Your task to perform on an android device: turn on notifications settings in the gmail app Image 0: 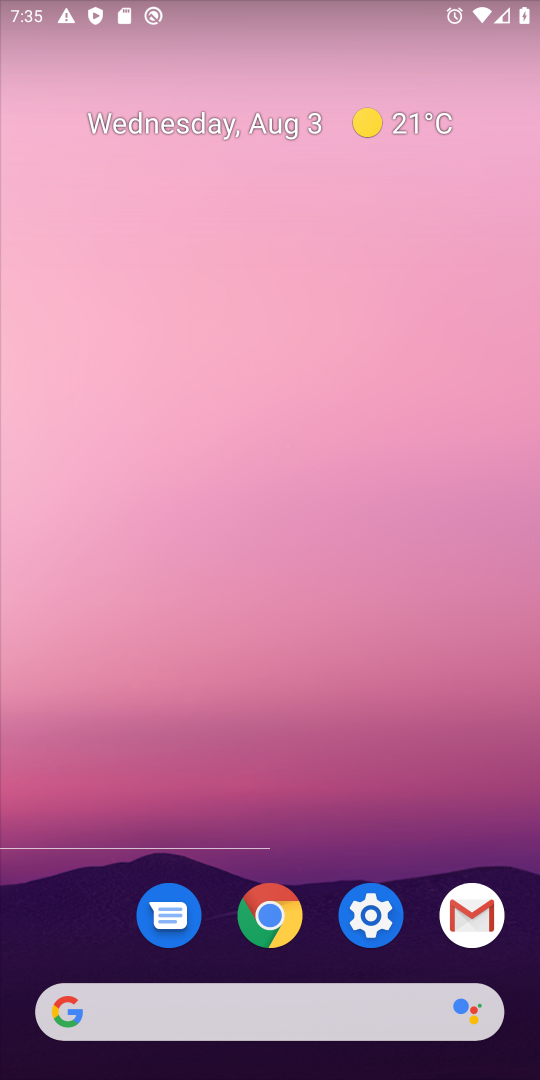
Step 0: press home button
Your task to perform on an android device: turn on notifications settings in the gmail app Image 1: 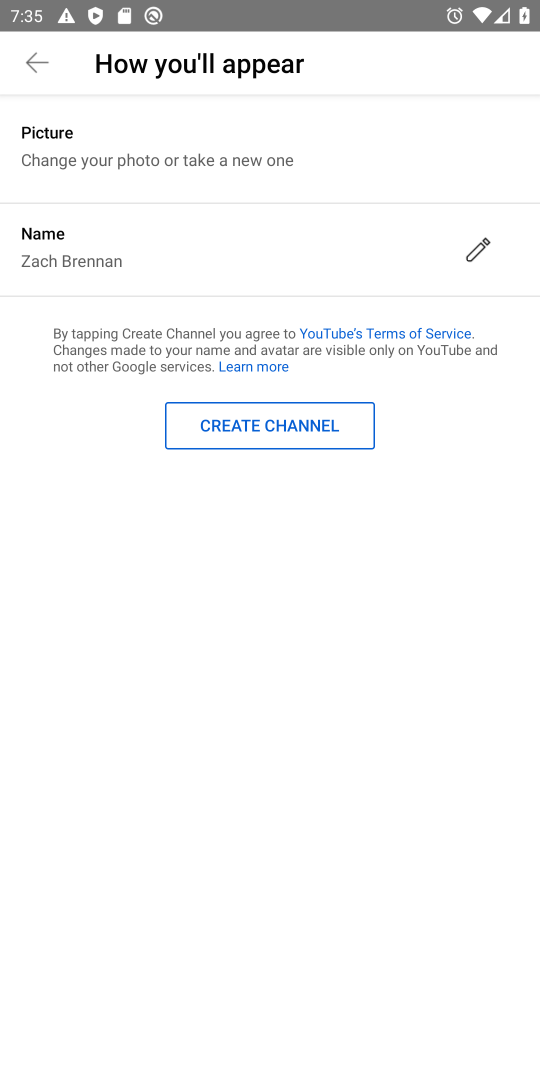
Step 1: drag from (321, 365) to (345, 83)
Your task to perform on an android device: turn on notifications settings in the gmail app Image 2: 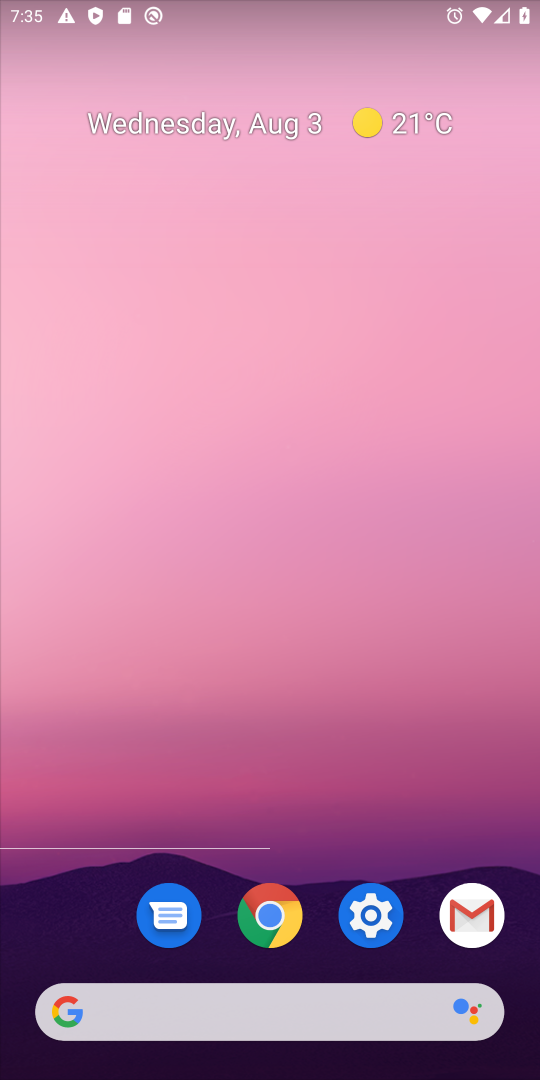
Step 2: drag from (283, 1043) to (292, 194)
Your task to perform on an android device: turn on notifications settings in the gmail app Image 3: 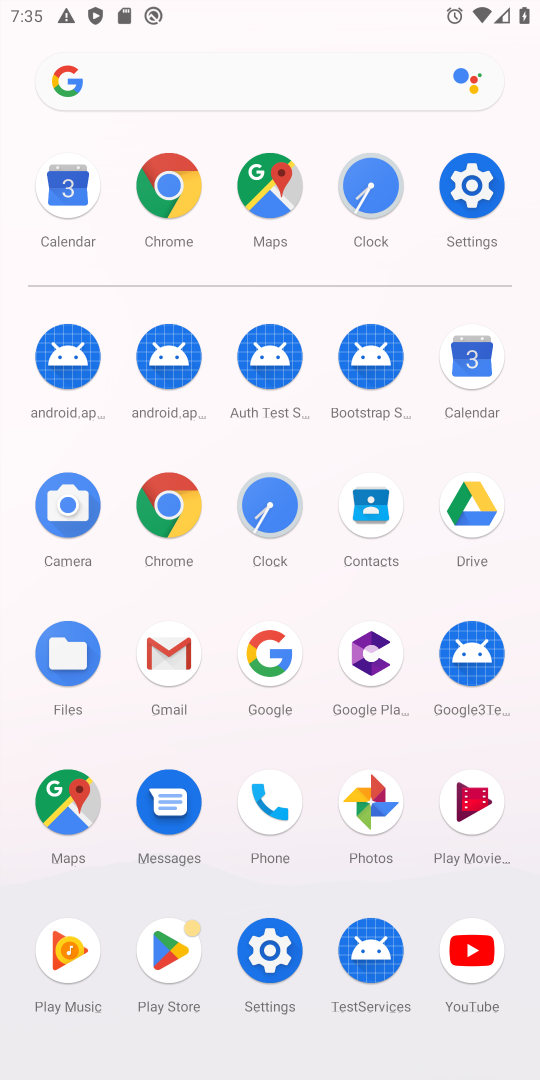
Step 3: click (186, 640)
Your task to perform on an android device: turn on notifications settings in the gmail app Image 4: 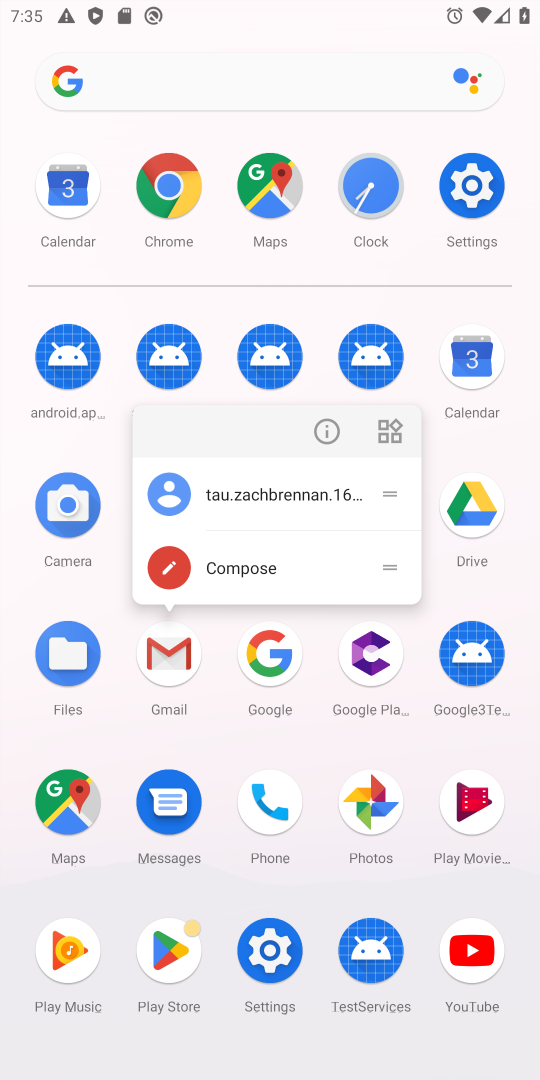
Step 4: click (181, 654)
Your task to perform on an android device: turn on notifications settings in the gmail app Image 5: 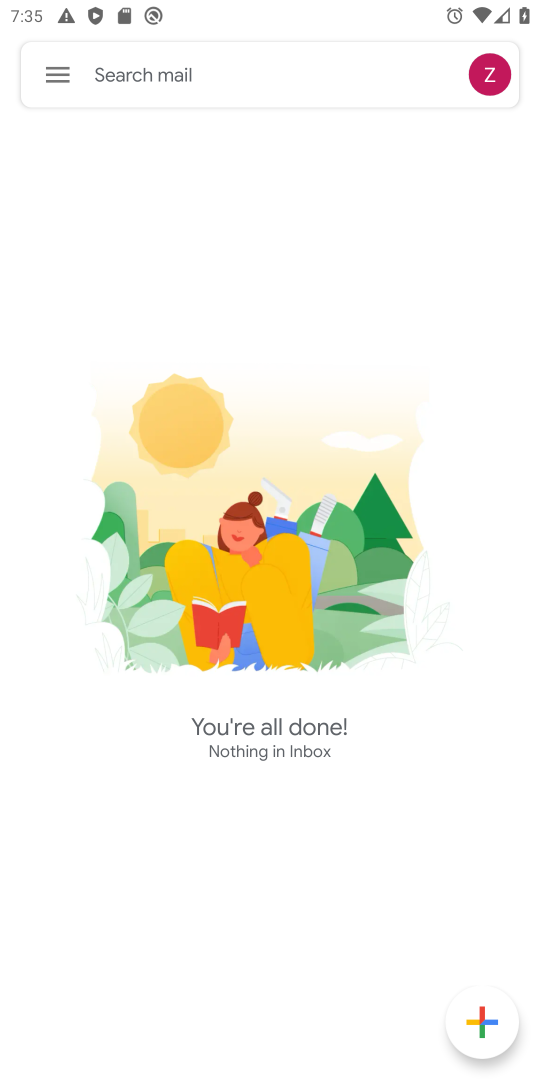
Step 5: click (55, 87)
Your task to perform on an android device: turn on notifications settings in the gmail app Image 6: 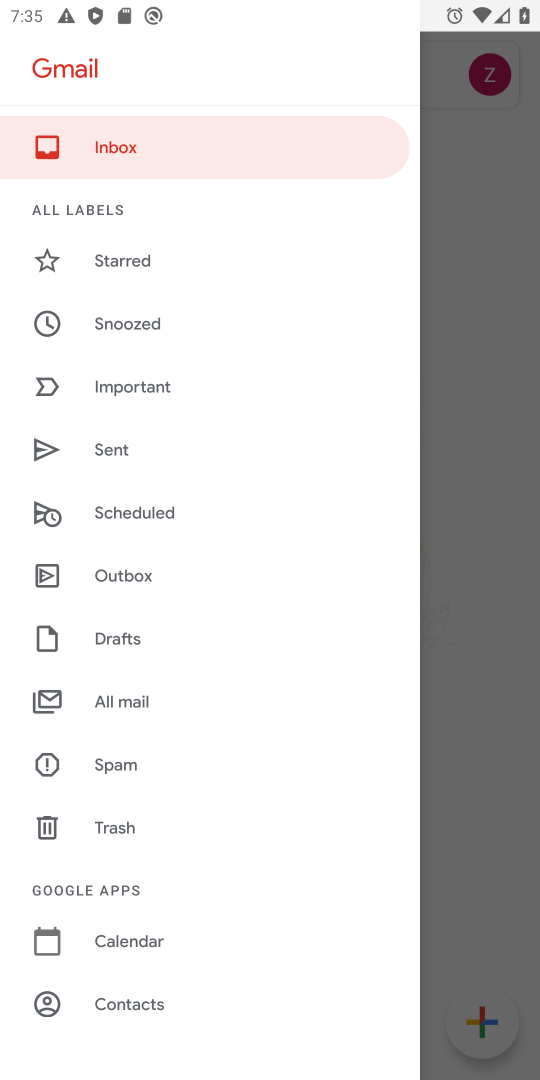
Step 6: drag from (139, 971) to (163, 856)
Your task to perform on an android device: turn on notifications settings in the gmail app Image 7: 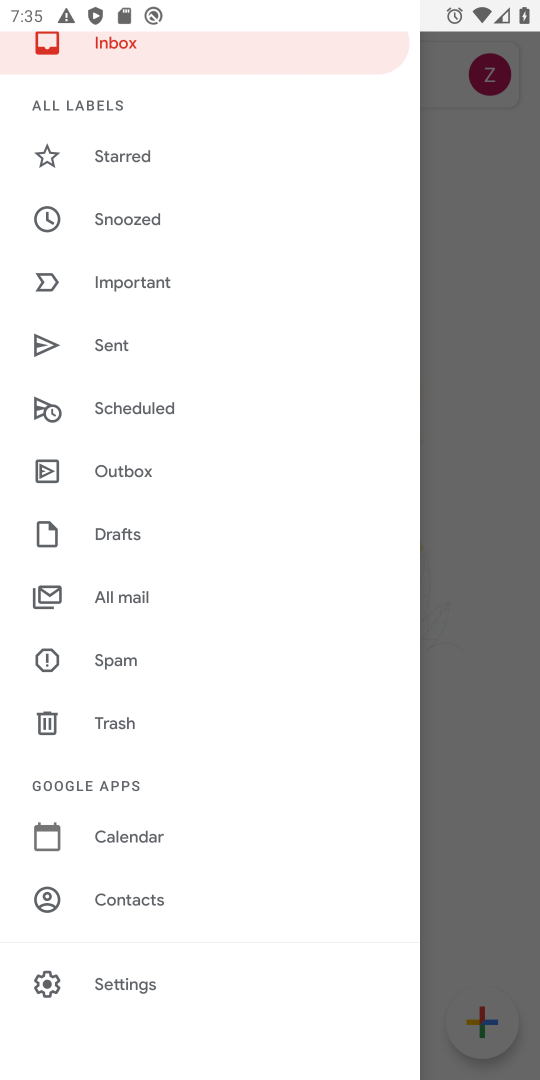
Step 7: click (121, 986)
Your task to perform on an android device: turn on notifications settings in the gmail app Image 8: 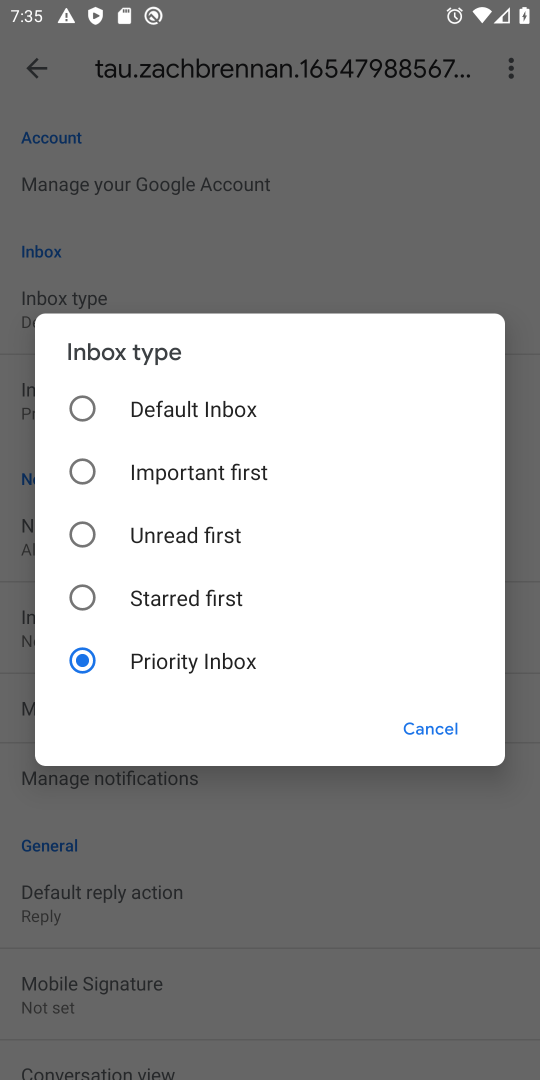
Step 8: click (452, 720)
Your task to perform on an android device: turn on notifications settings in the gmail app Image 9: 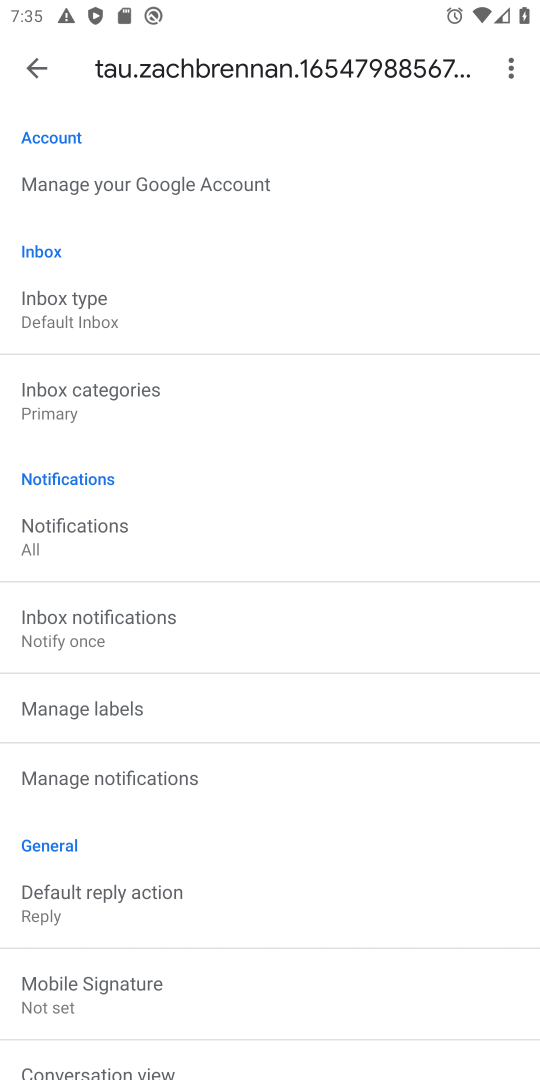
Step 9: click (105, 537)
Your task to perform on an android device: turn on notifications settings in the gmail app Image 10: 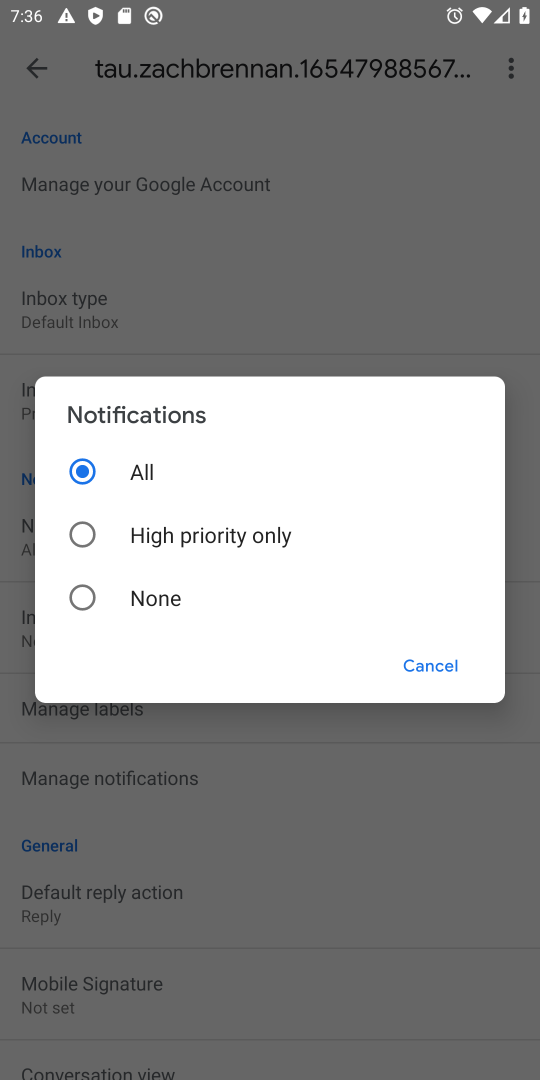
Step 10: task complete